Your task to perform on an android device: turn notification dots on Image 0: 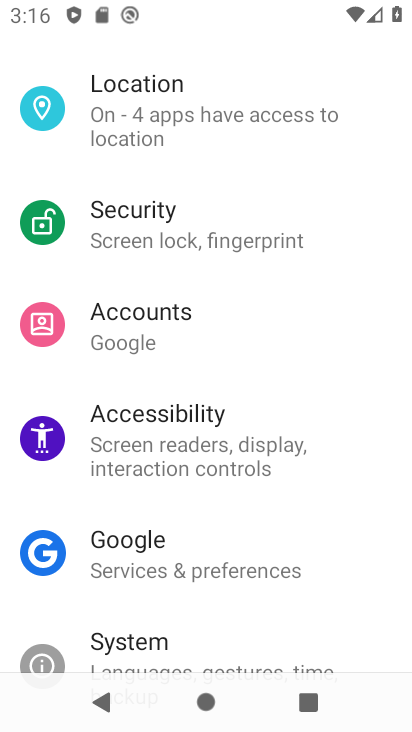
Step 0: press home button
Your task to perform on an android device: turn notification dots on Image 1: 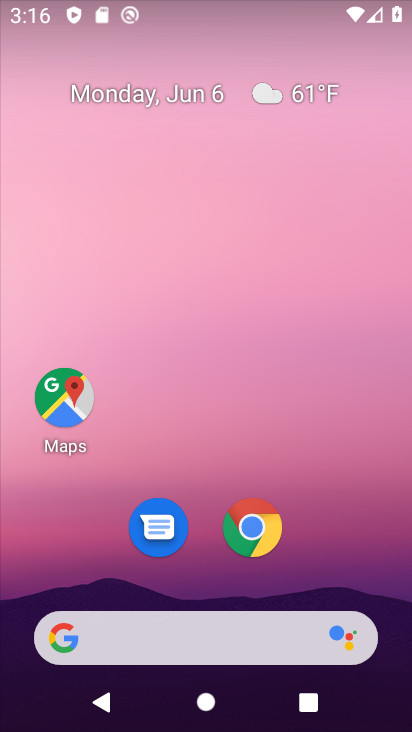
Step 1: drag from (322, 544) to (282, 82)
Your task to perform on an android device: turn notification dots on Image 2: 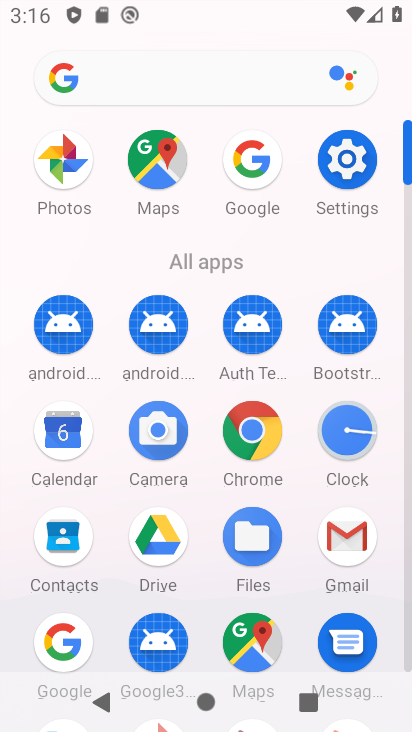
Step 2: click (348, 160)
Your task to perform on an android device: turn notification dots on Image 3: 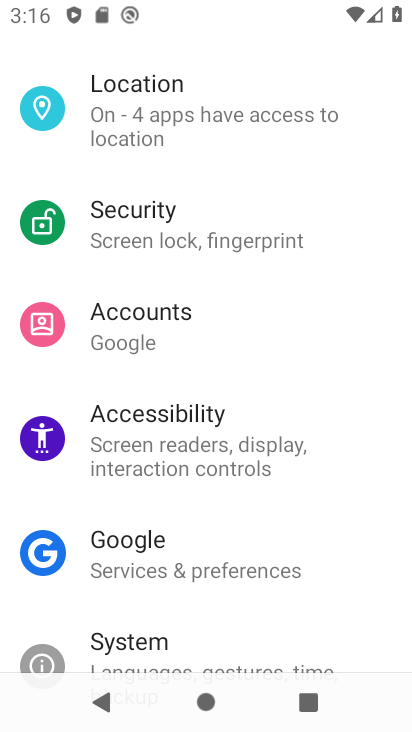
Step 3: drag from (205, 159) to (234, 331)
Your task to perform on an android device: turn notification dots on Image 4: 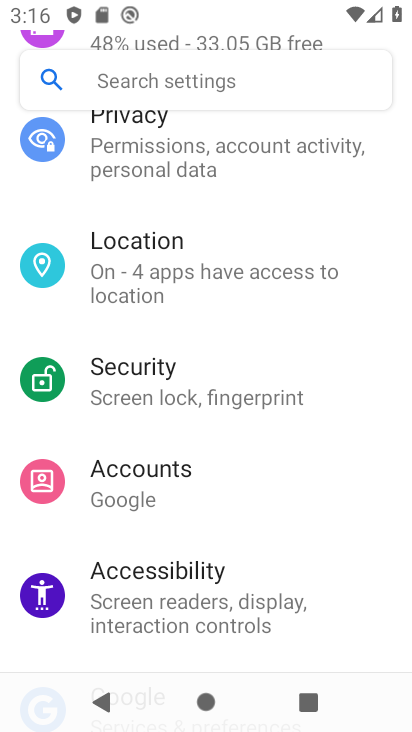
Step 4: drag from (231, 209) to (244, 547)
Your task to perform on an android device: turn notification dots on Image 5: 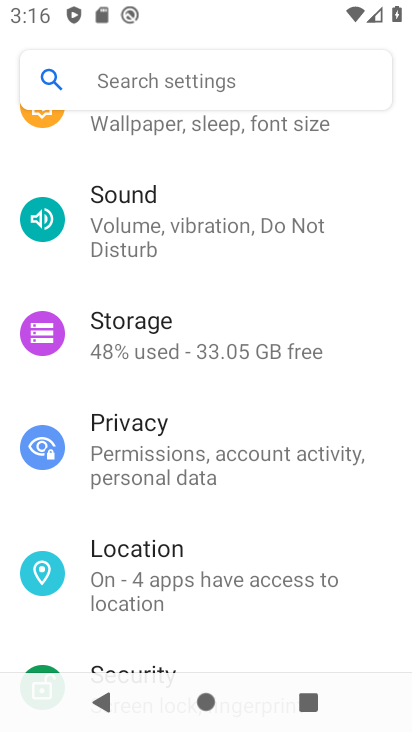
Step 5: drag from (228, 289) to (277, 549)
Your task to perform on an android device: turn notification dots on Image 6: 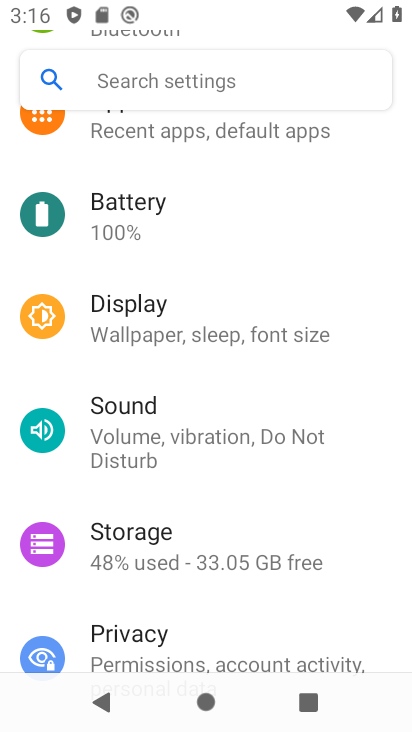
Step 6: drag from (195, 244) to (251, 536)
Your task to perform on an android device: turn notification dots on Image 7: 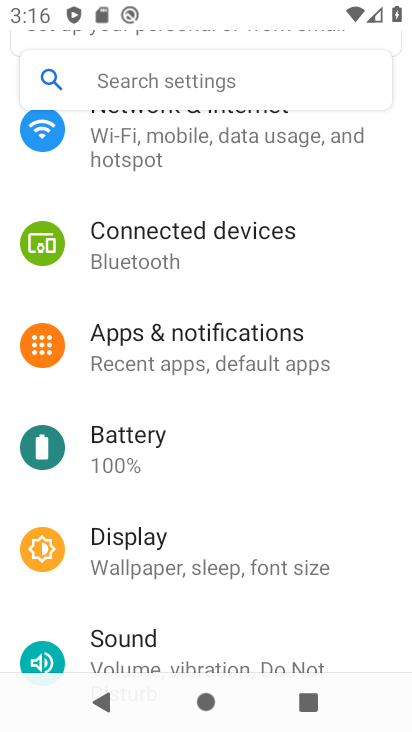
Step 7: click (217, 363)
Your task to perform on an android device: turn notification dots on Image 8: 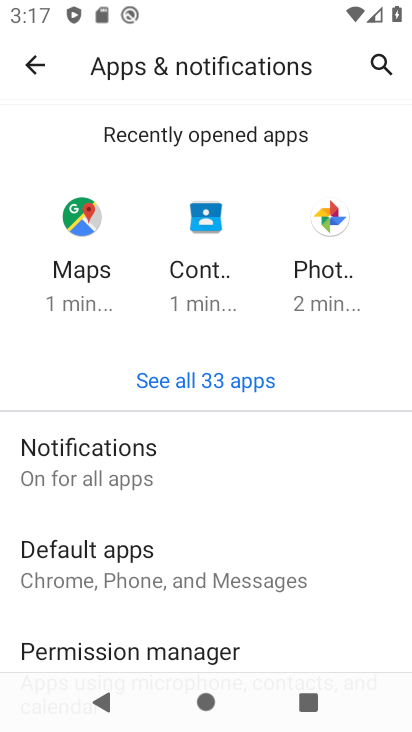
Step 8: click (120, 448)
Your task to perform on an android device: turn notification dots on Image 9: 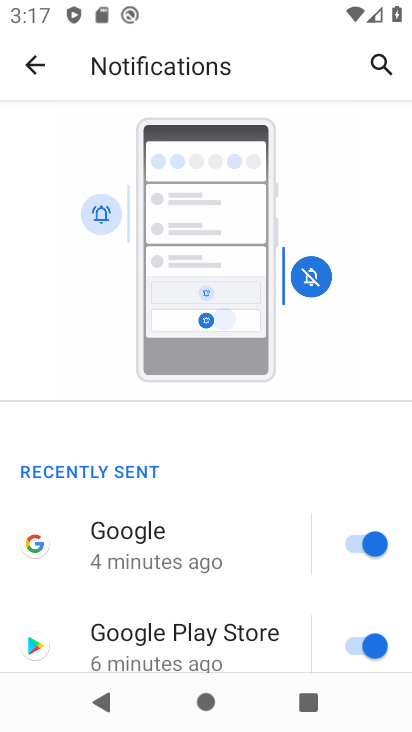
Step 9: drag from (231, 484) to (251, 104)
Your task to perform on an android device: turn notification dots on Image 10: 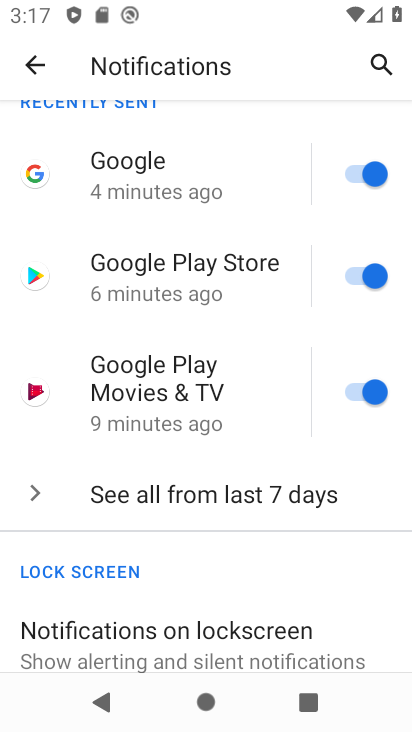
Step 10: drag from (189, 557) to (241, 276)
Your task to perform on an android device: turn notification dots on Image 11: 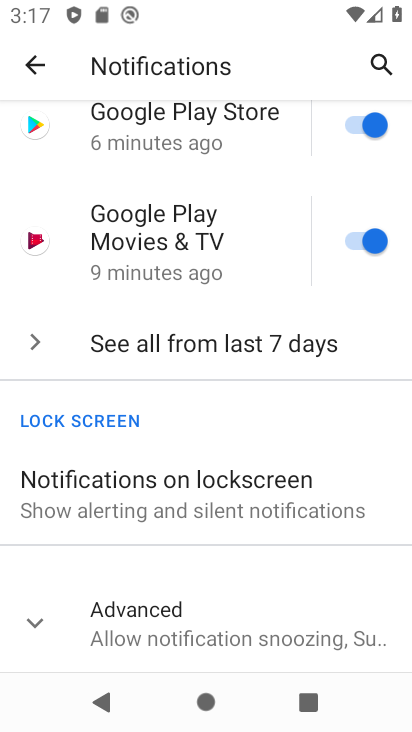
Step 11: click (234, 644)
Your task to perform on an android device: turn notification dots on Image 12: 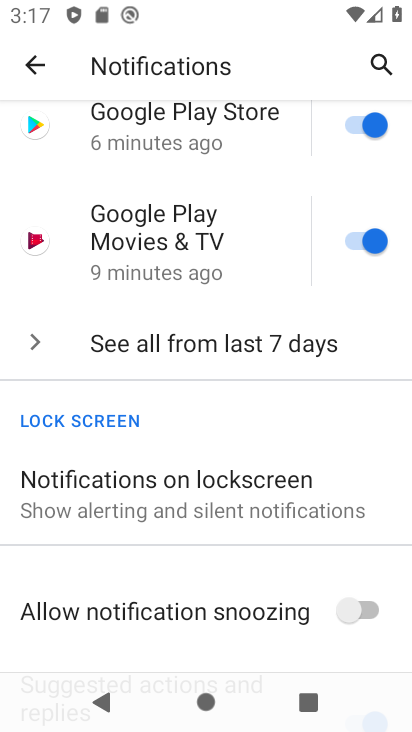
Step 12: task complete